Your task to perform on an android device: toggle sleep mode Image 0: 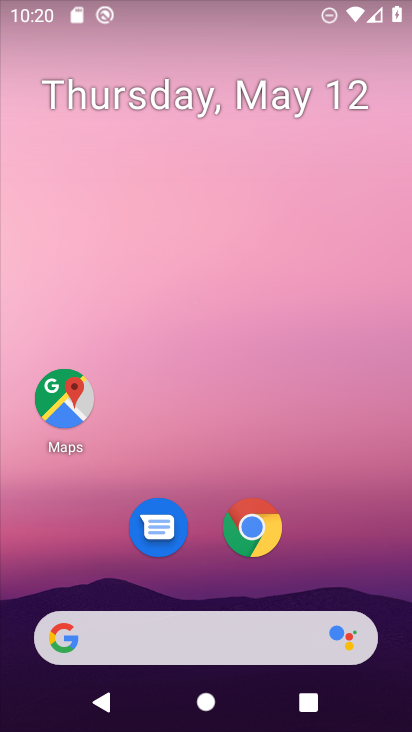
Step 0: drag from (335, 570) to (321, 141)
Your task to perform on an android device: toggle sleep mode Image 1: 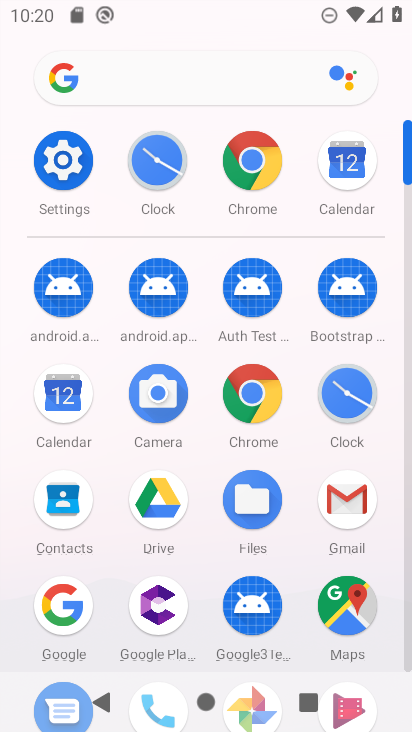
Step 1: click (56, 150)
Your task to perform on an android device: toggle sleep mode Image 2: 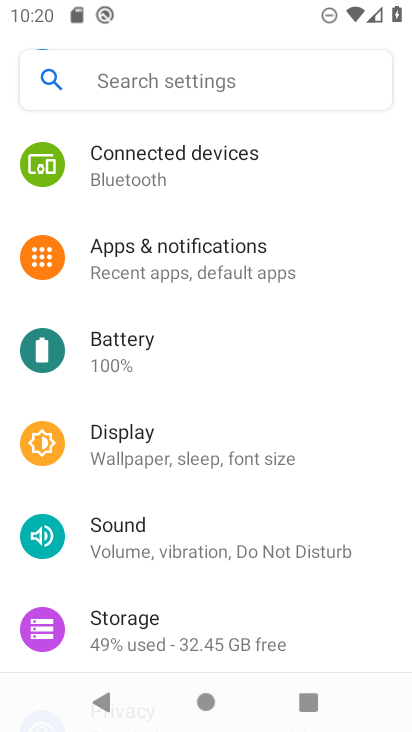
Step 2: drag from (197, 534) to (221, 308)
Your task to perform on an android device: toggle sleep mode Image 3: 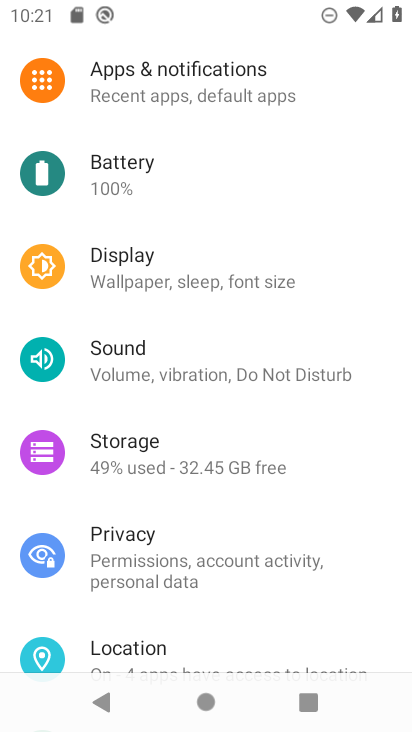
Step 3: click (292, 274)
Your task to perform on an android device: toggle sleep mode Image 4: 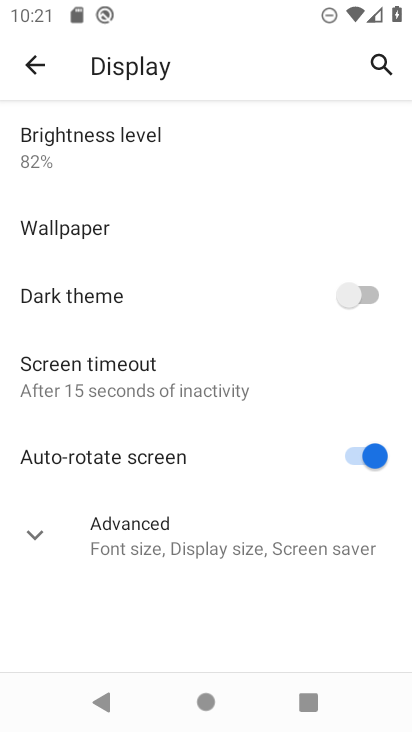
Step 4: click (242, 408)
Your task to perform on an android device: toggle sleep mode Image 5: 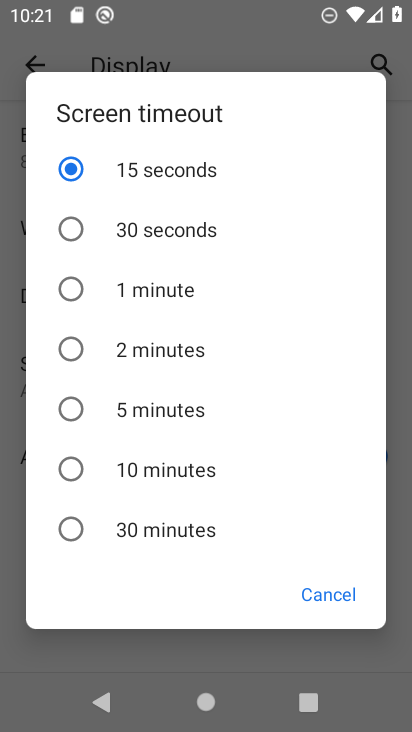
Step 5: click (38, 379)
Your task to perform on an android device: toggle sleep mode Image 6: 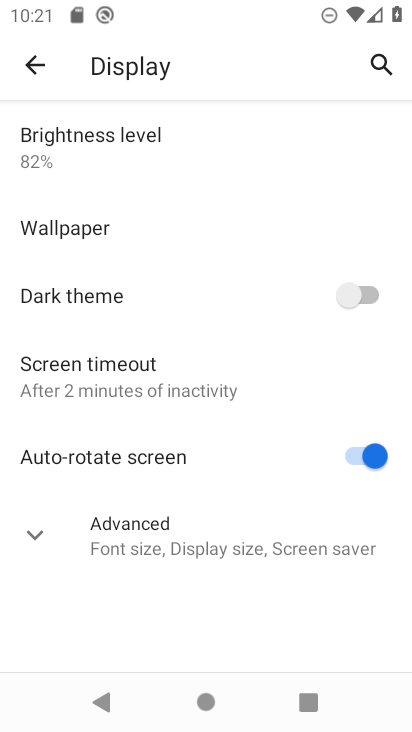
Step 6: task complete